Your task to perform on an android device: remove spam from my inbox in the gmail app Image 0: 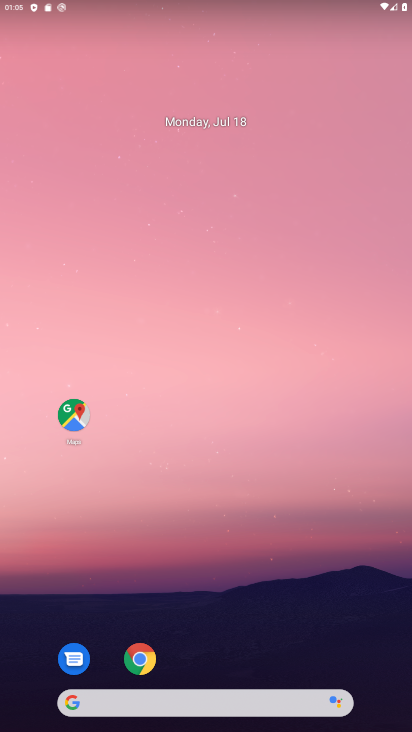
Step 0: drag from (252, 397) to (224, 51)
Your task to perform on an android device: remove spam from my inbox in the gmail app Image 1: 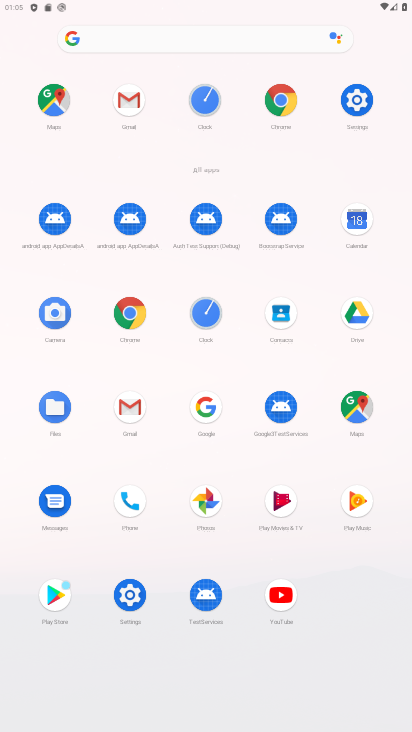
Step 1: click (129, 91)
Your task to perform on an android device: remove spam from my inbox in the gmail app Image 2: 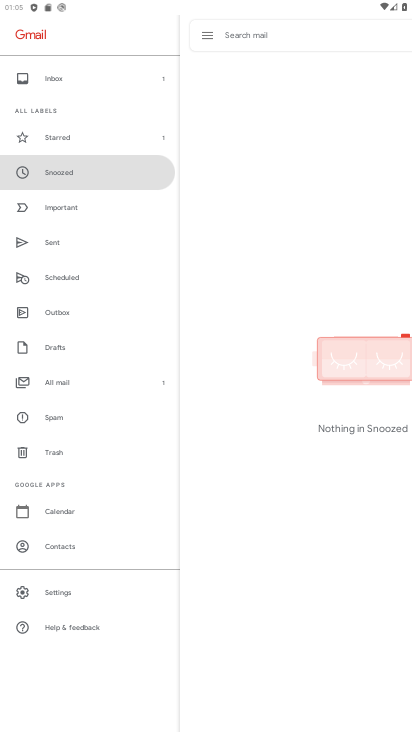
Step 2: click (54, 85)
Your task to perform on an android device: remove spam from my inbox in the gmail app Image 3: 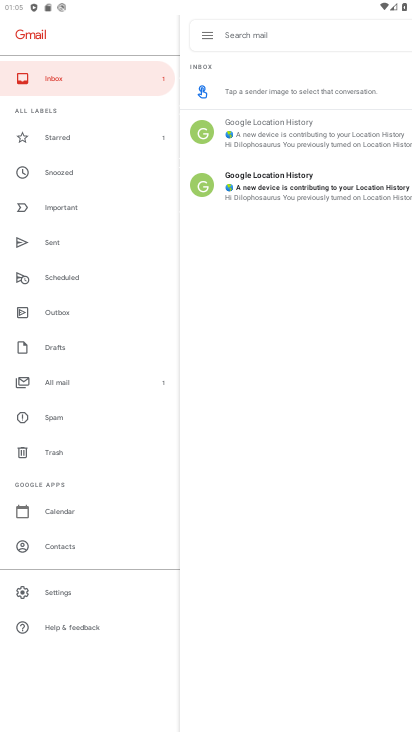
Step 3: task complete